Your task to perform on an android device: Open maps Image 0: 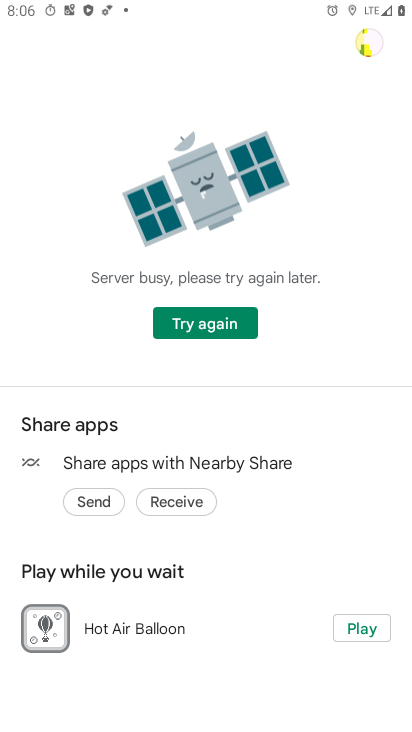
Step 0: press home button
Your task to perform on an android device: Open maps Image 1: 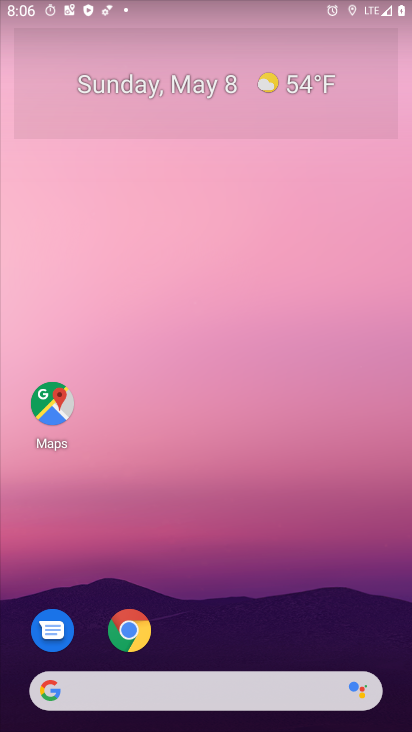
Step 1: drag from (213, 669) to (217, 0)
Your task to perform on an android device: Open maps Image 2: 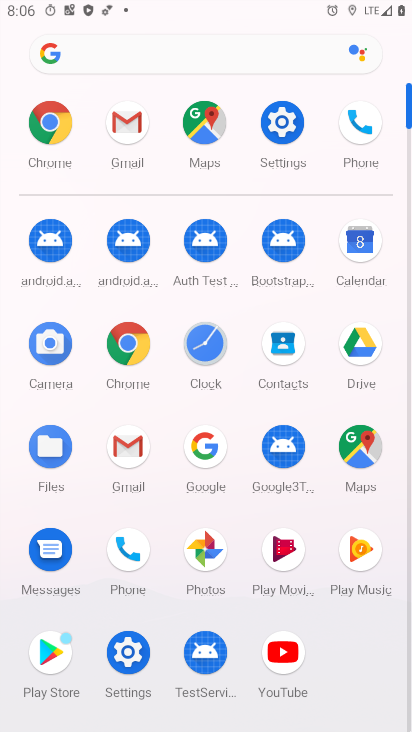
Step 2: click (368, 455)
Your task to perform on an android device: Open maps Image 3: 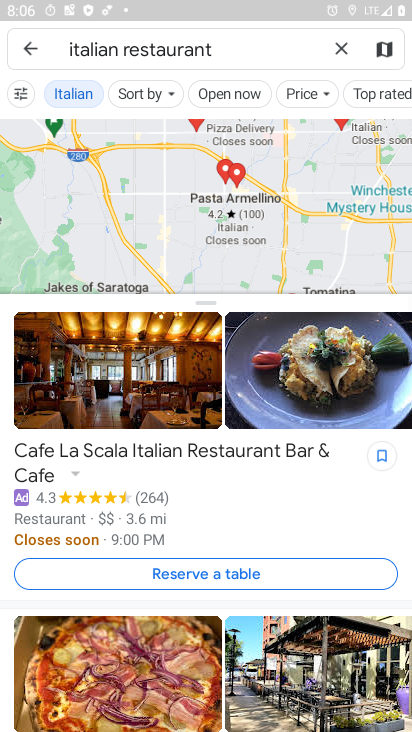
Step 3: click (76, 187)
Your task to perform on an android device: Open maps Image 4: 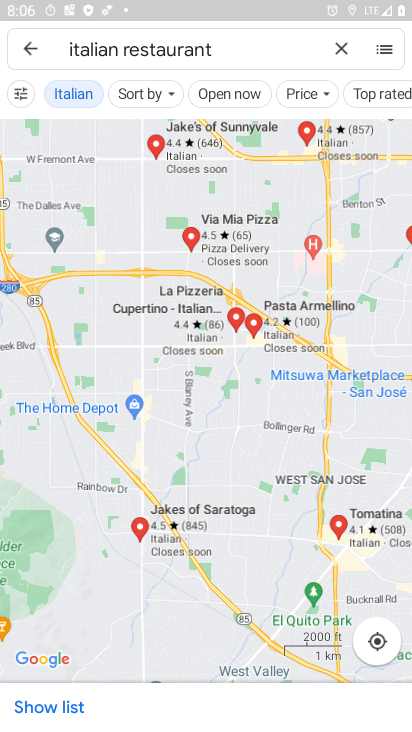
Step 4: task complete